Your task to perform on an android device: check battery use Image 0: 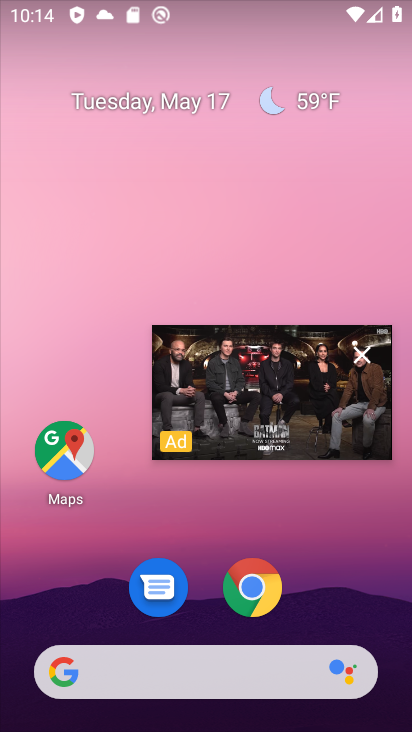
Step 0: click (354, 525)
Your task to perform on an android device: check battery use Image 1: 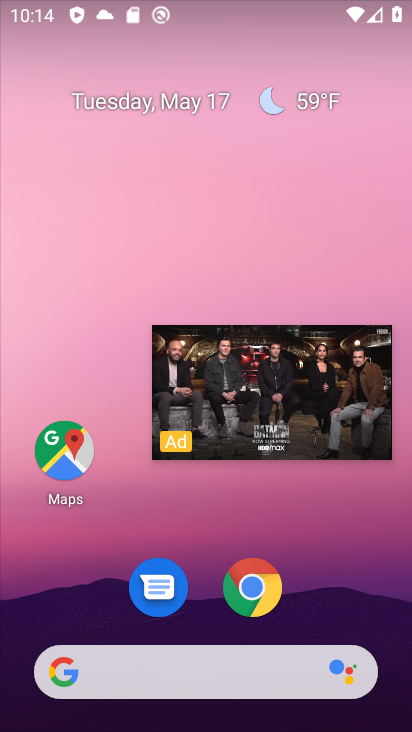
Step 1: click (373, 356)
Your task to perform on an android device: check battery use Image 2: 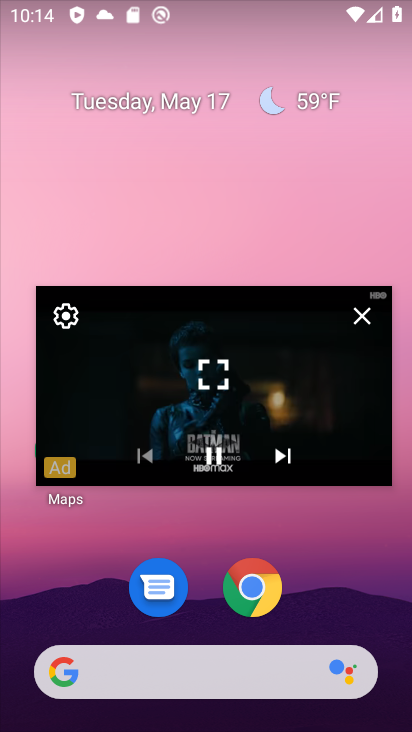
Step 2: click (363, 309)
Your task to perform on an android device: check battery use Image 3: 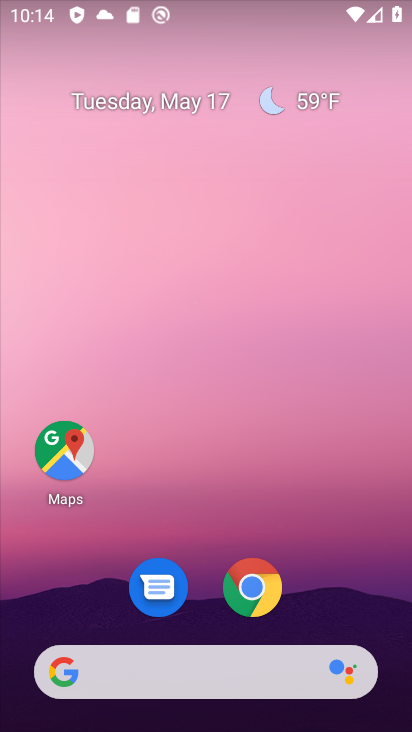
Step 3: drag from (307, 570) to (273, 382)
Your task to perform on an android device: check battery use Image 4: 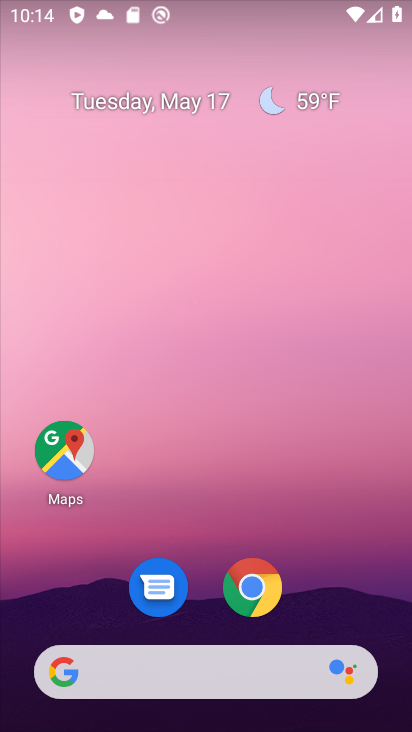
Step 4: drag from (333, 605) to (284, 321)
Your task to perform on an android device: check battery use Image 5: 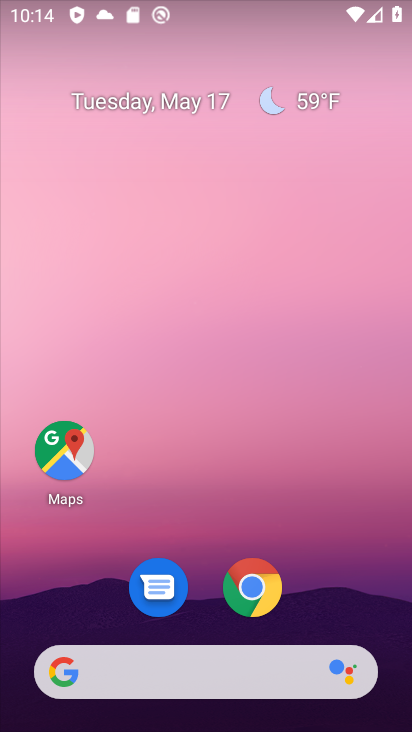
Step 5: drag from (352, 605) to (256, 249)
Your task to perform on an android device: check battery use Image 6: 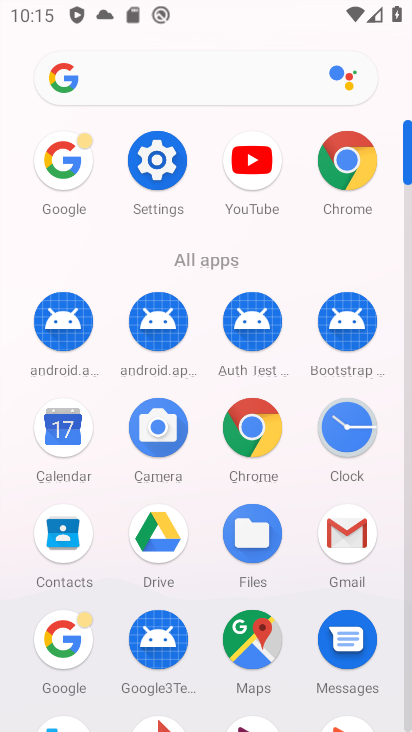
Step 6: click (145, 158)
Your task to perform on an android device: check battery use Image 7: 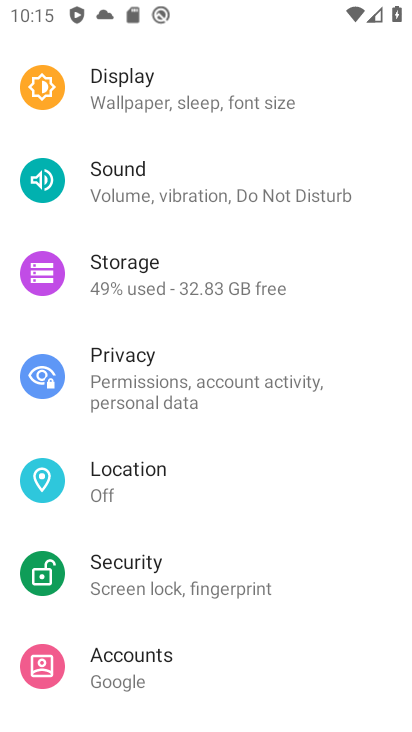
Step 7: drag from (230, 240) to (236, 507)
Your task to perform on an android device: check battery use Image 8: 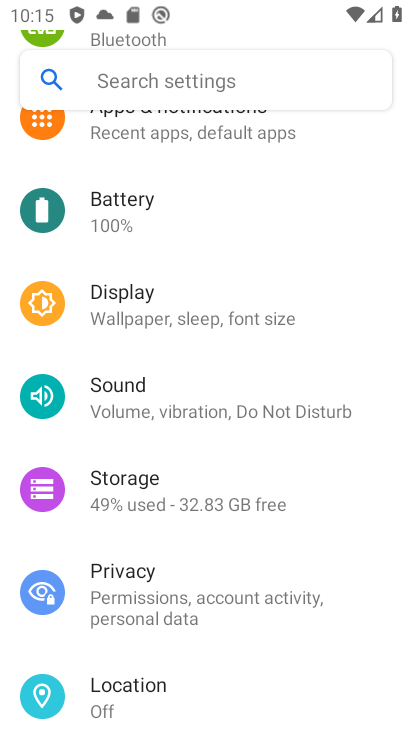
Step 8: click (206, 222)
Your task to perform on an android device: check battery use Image 9: 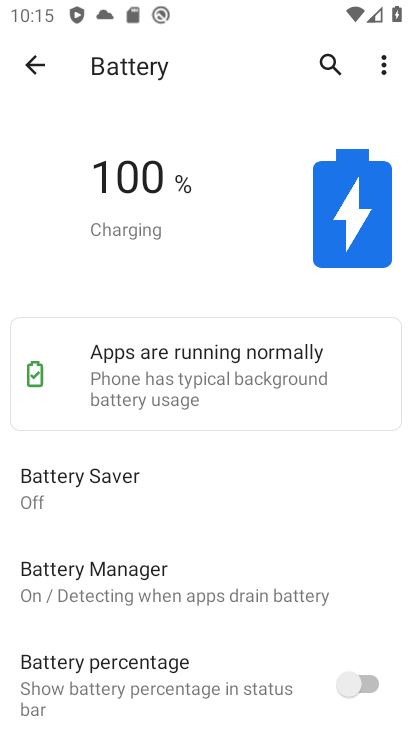
Step 9: click (388, 62)
Your task to perform on an android device: check battery use Image 10: 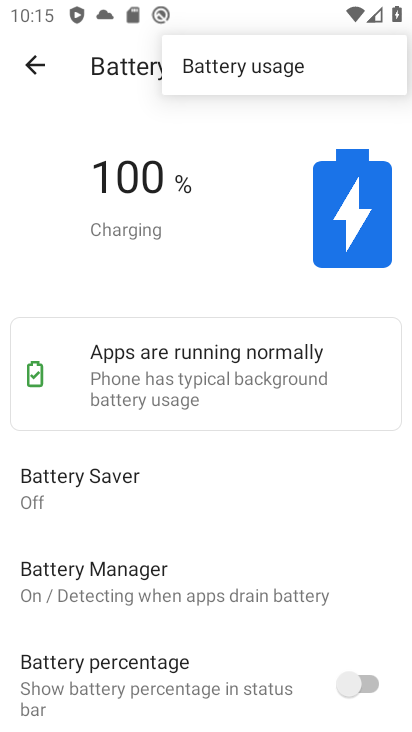
Step 10: click (333, 61)
Your task to perform on an android device: check battery use Image 11: 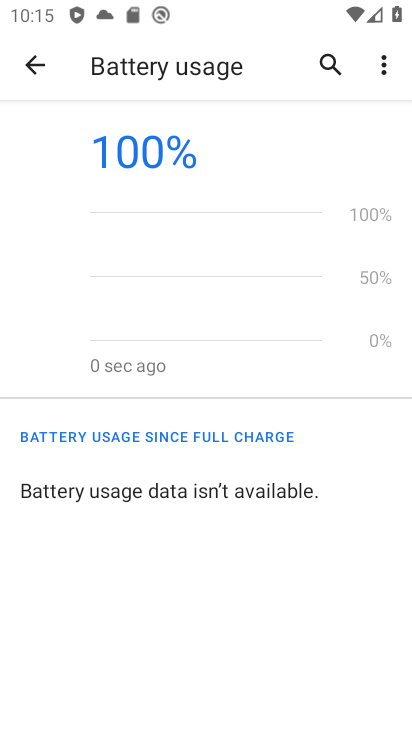
Step 11: task complete